Your task to perform on an android device: toggle sleep mode Image 0: 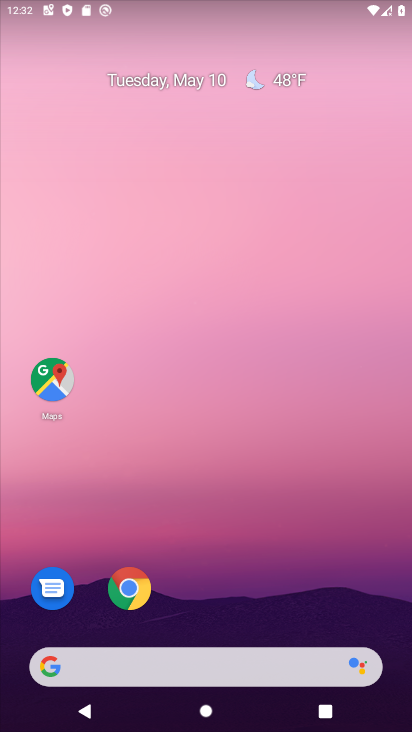
Step 0: drag from (253, 602) to (272, 457)
Your task to perform on an android device: toggle sleep mode Image 1: 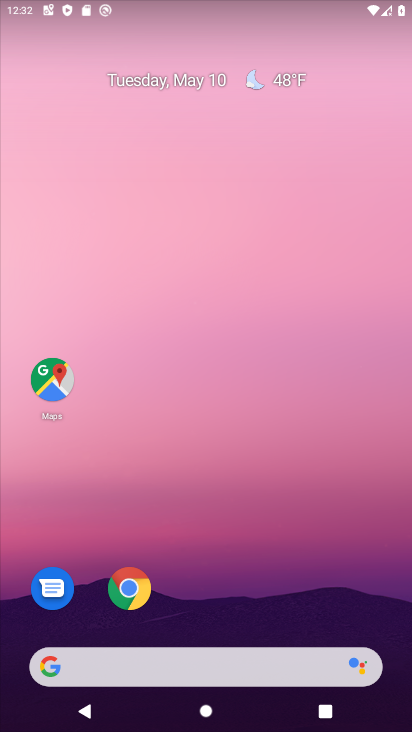
Step 1: drag from (262, 608) to (249, 492)
Your task to perform on an android device: toggle sleep mode Image 2: 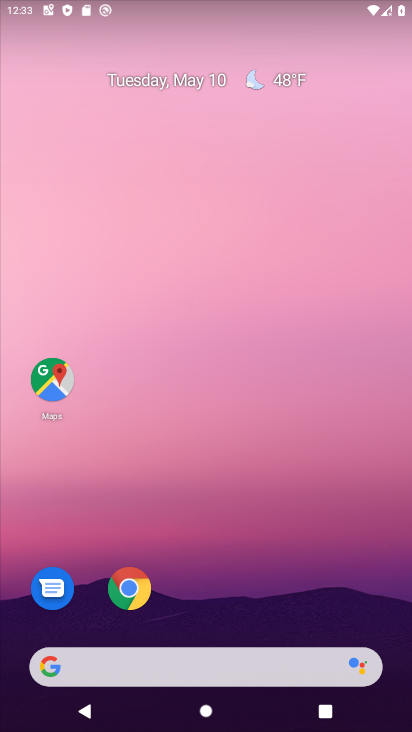
Step 2: click (242, 398)
Your task to perform on an android device: toggle sleep mode Image 3: 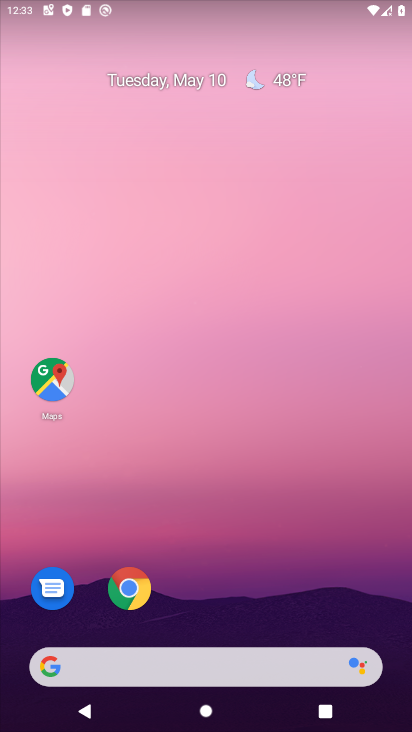
Step 3: click (242, 398)
Your task to perform on an android device: toggle sleep mode Image 4: 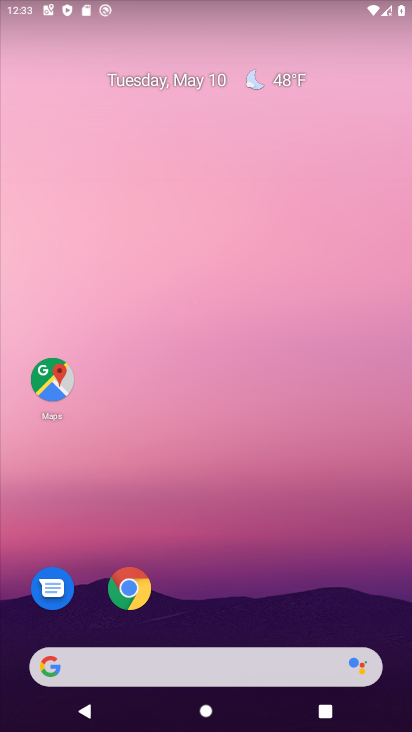
Step 4: drag from (249, 583) to (224, 385)
Your task to perform on an android device: toggle sleep mode Image 5: 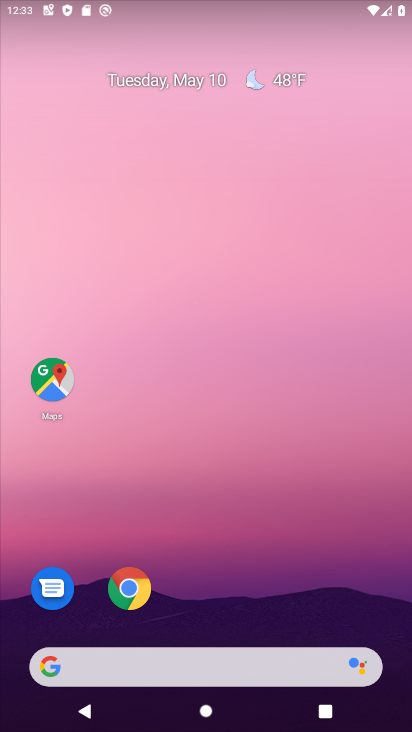
Step 5: drag from (237, 617) to (270, 350)
Your task to perform on an android device: toggle sleep mode Image 6: 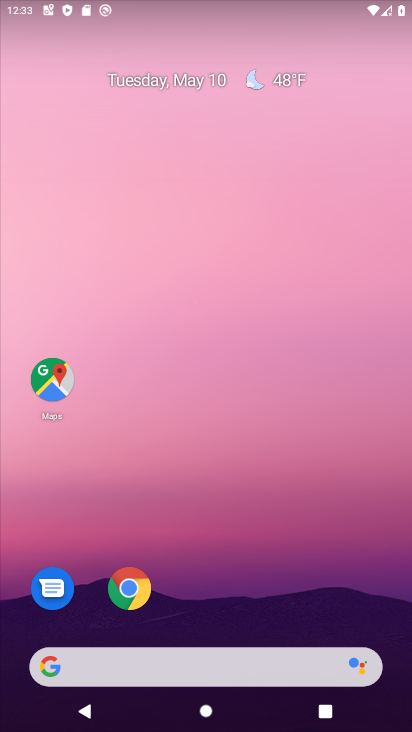
Step 6: drag from (248, 620) to (408, 436)
Your task to perform on an android device: toggle sleep mode Image 7: 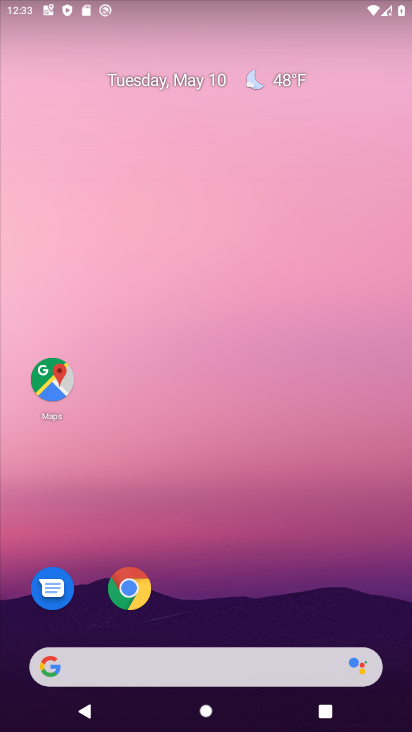
Step 7: drag from (232, 604) to (222, 402)
Your task to perform on an android device: toggle sleep mode Image 8: 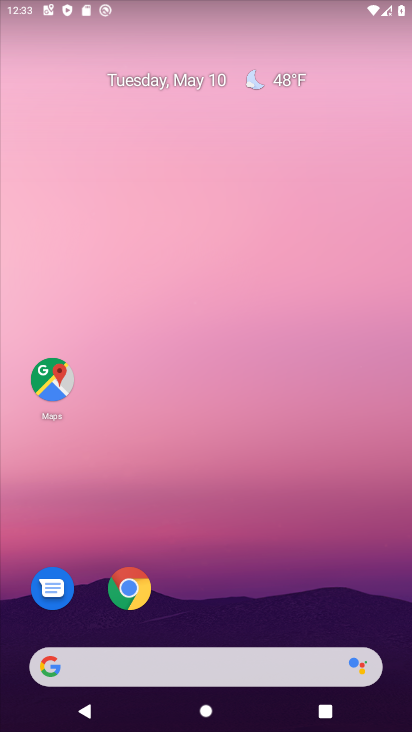
Step 8: drag from (218, 581) to (218, 164)
Your task to perform on an android device: toggle sleep mode Image 9: 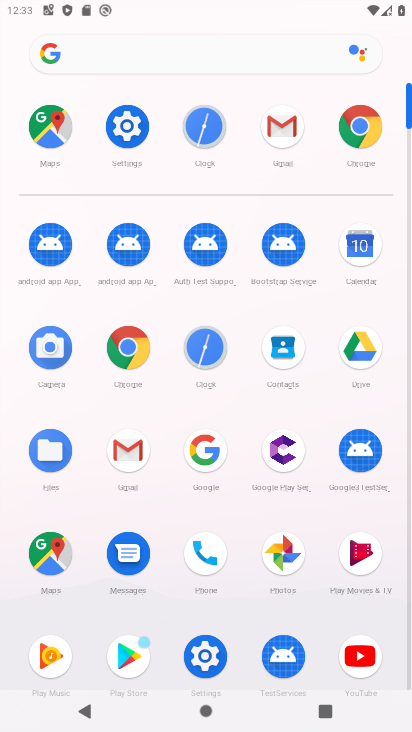
Step 9: click (126, 121)
Your task to perform on an android device: toggle sleep mode Image 10: 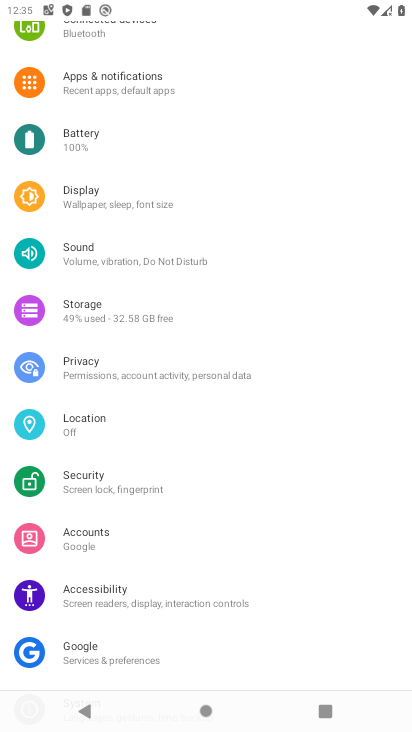
Step 10: task complete